Your task to perform on an android device: Go to Amazon Image 0: 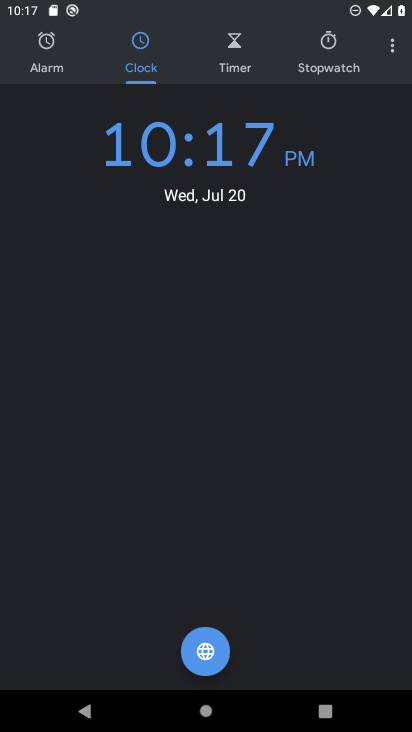
Step 0: press home button
Your task to perform on an android device: Go to Amazon Image 1: 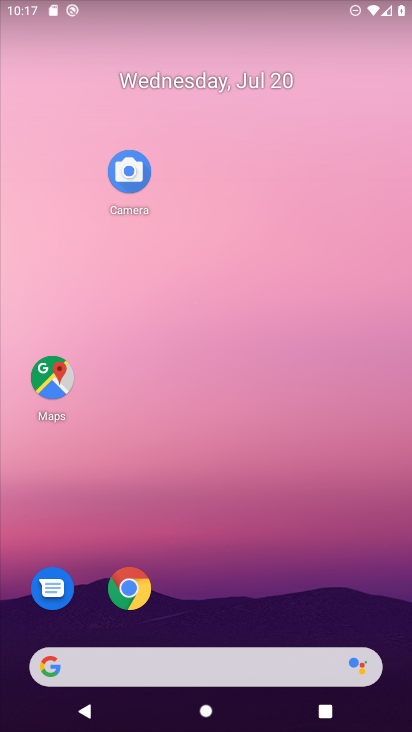
Step 1: click (47, 672)
Your task to perform on an android device: Go to Amazon Image 2: 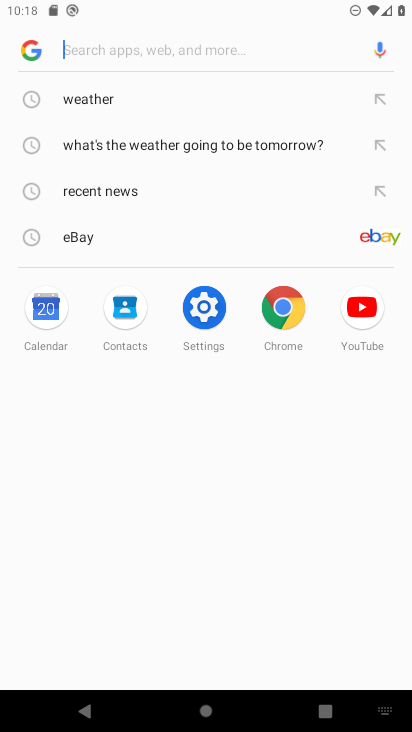
Step 2: type "Amazon"
Your task to perform on an android device: Go to Amazon Image 3: 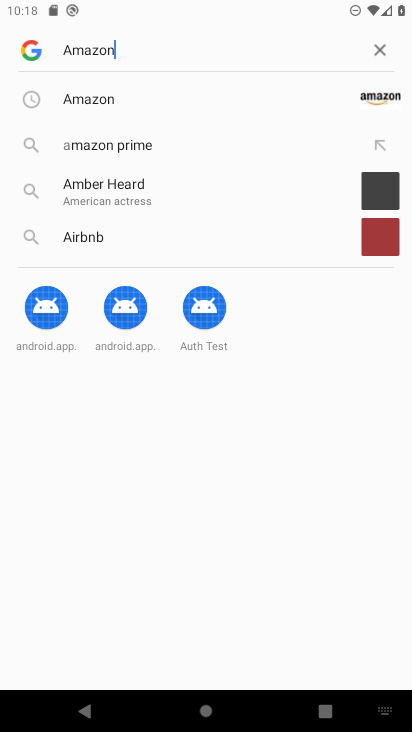
Step 3: press enter
Your task to perform on an android device: Go to Amazon Image 4: 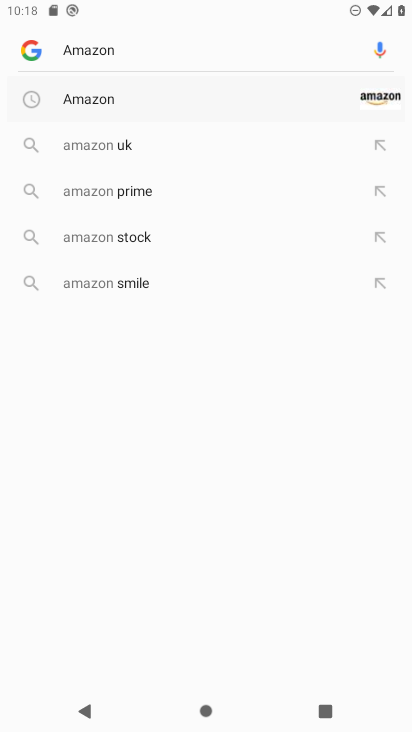
Step 4: click (84, 95)
Your task to perform on an android device: Go to Amazon Image 5: 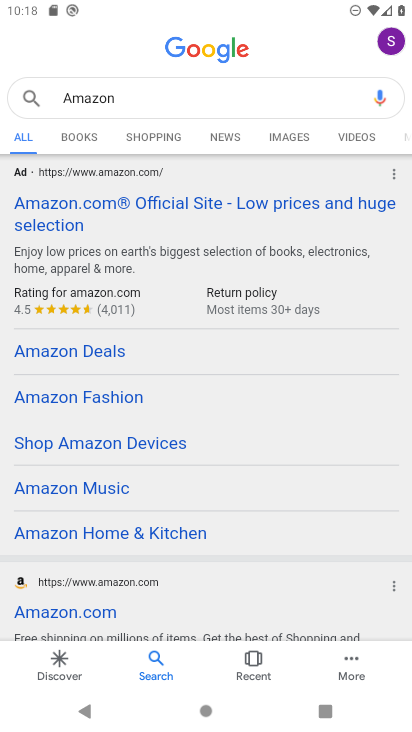
Step 5: click (114, 212)
Your task to perform on an android device: Go to Amazon Image 6: 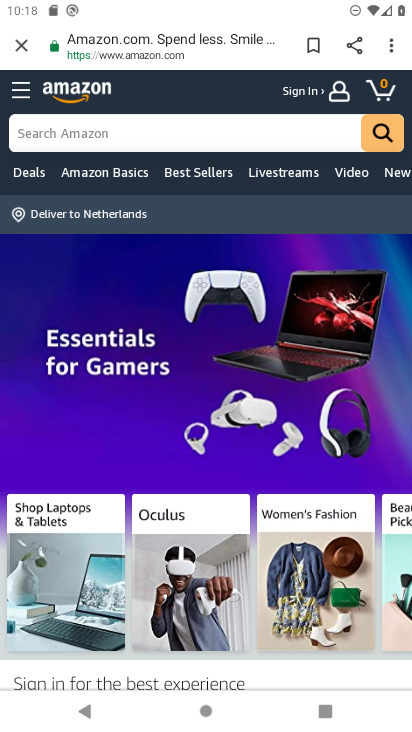
Step 6: task complete